Your task to perform on an android device: delete a single message in the gmail app Image 0: 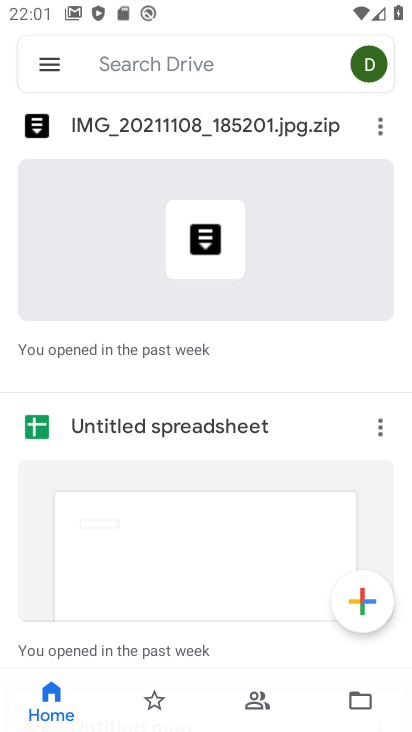
Step 0: press home button
Your task to perform on an android device: delete a single message in the gmail app Image 1: 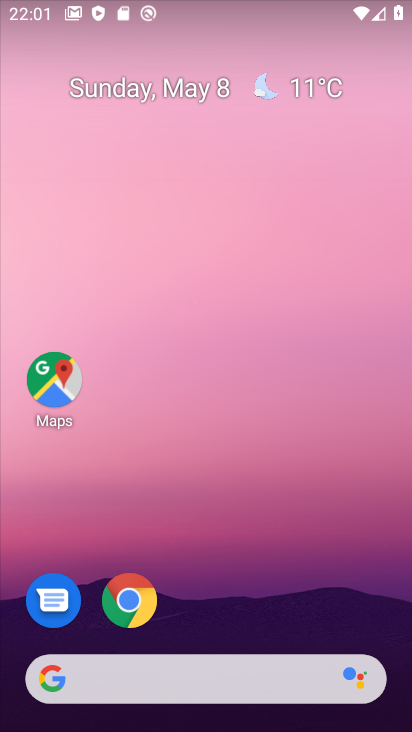
Step 1: drag from (192, 610) to (218, 215)
Your task to perform on an android device: delete a single message in the gmail app Image 2: 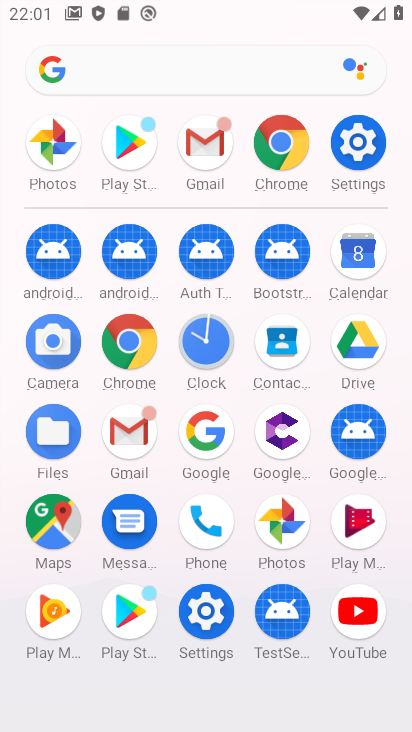
Step 2: click (205, 147)
Your task to perform on an android device: delete a single message in the gmail app Image 3: 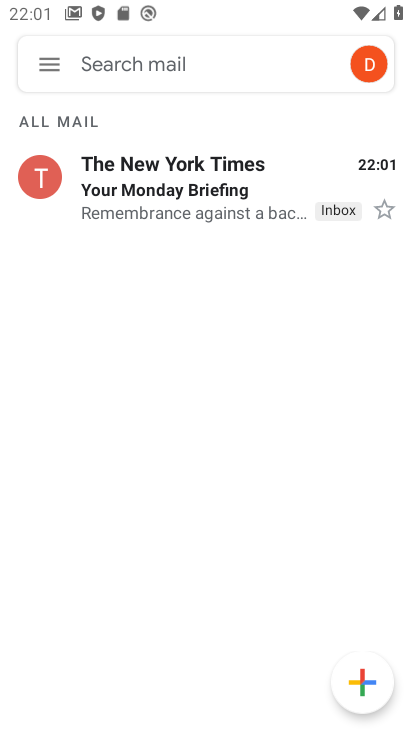
Step 3: click (66, 154)
Your task to perform on an android device: delete a single message in the gmail app Image 4: 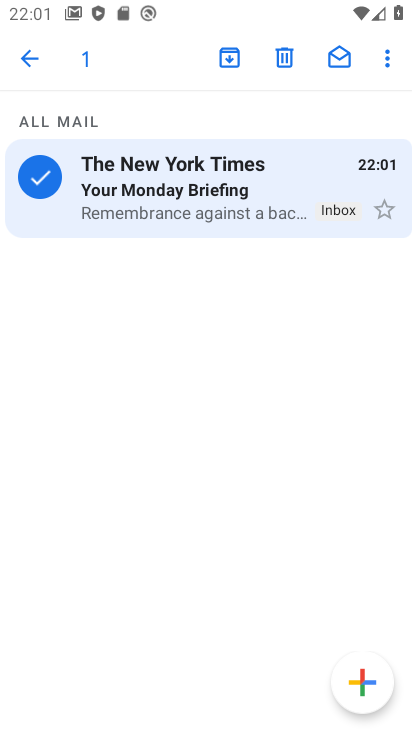
Step 4: click (288, 55)
Your task to perform on an android device: delete a single message in the gmail app Image 5: 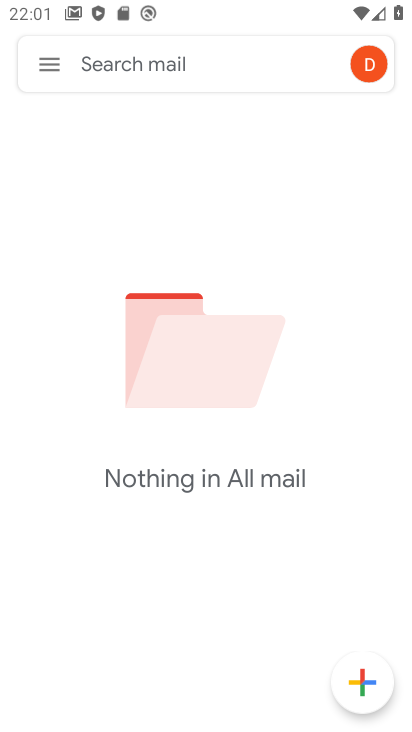
Step 5: task complete